Your task to perform on an android device: open the mobile data screen to see how much data has been used Image 0: 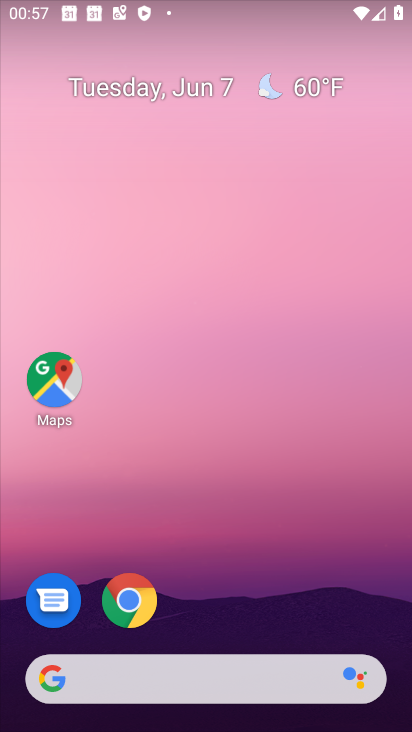
Step 0: drag from (231, 693) to (231, 132)
Your task to perform on an android device: open the mobile data screen to see how much data has been used Image 1: 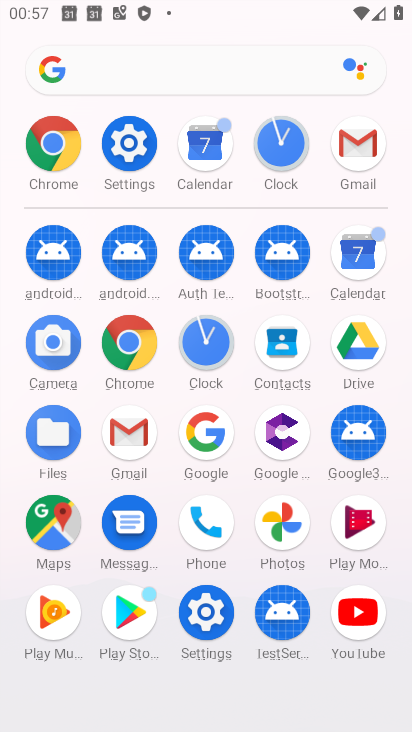
Step 1: click (202, 618)
Your task to perform on an android device: open the mobile data screen to see how much data has been used Image 2: 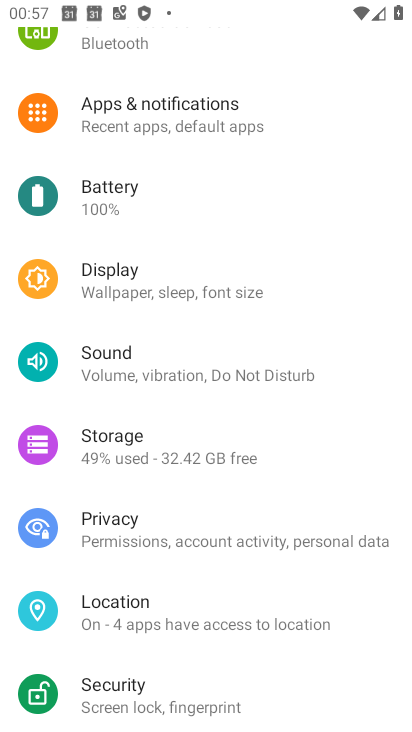
Step 2: drag from (168, 107) to (209, 530)
Your task to perform on an android device: open the mobile data screen to see how much data has been used Image 3: 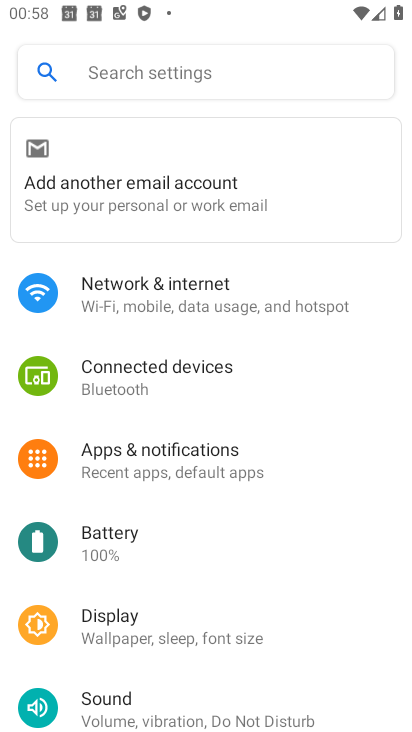
Step 3: click (141, 295)
Your task to perform on an android device: open the mobile data screen to see how much data has been used Image 4: 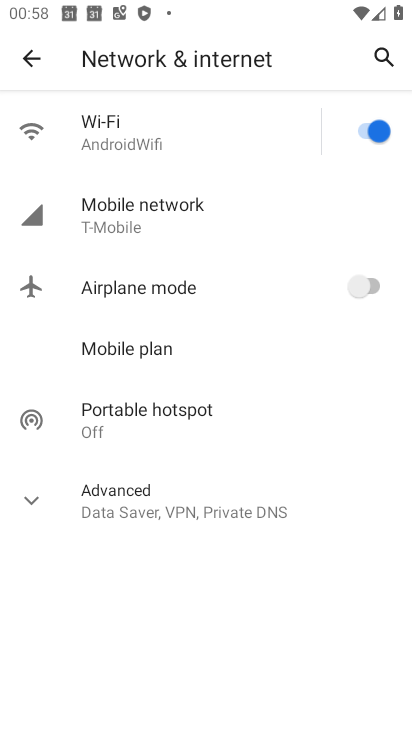
Step 4: click (112, 212)
Your task to perform on an android device: open the mobile data screen to see how much data has been used Image 5: 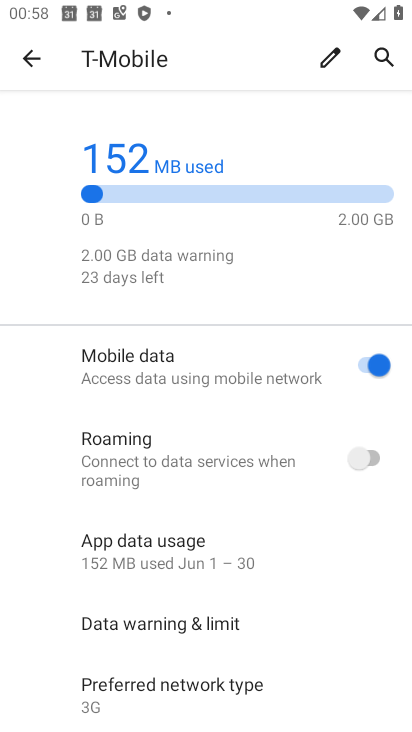
Step 5: click (155, 553)
Your task to perform on an android device: open the mobile data screen to see how much data has been used Image 6: 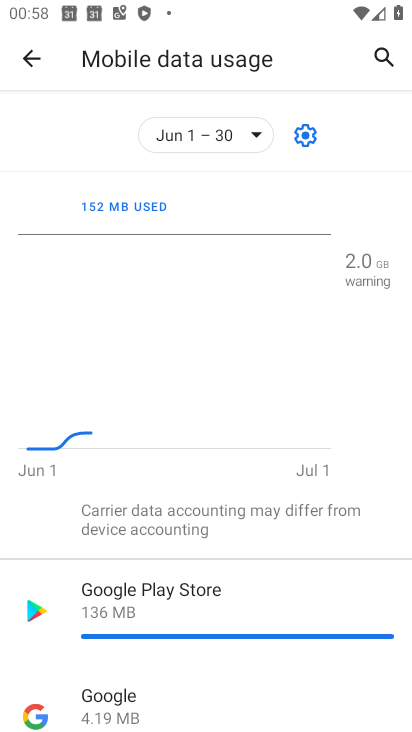
Step 6: task complete